Your task to perform on an android device: Open the Play Movies app and select the watchlist tab. Image 0: 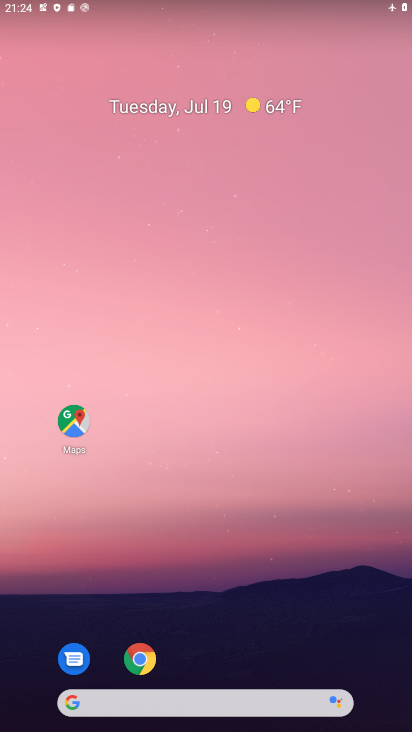
Step 0: drag from (243, 644) to (288, 42)
Your task to perform on an android device: Open the Play Movies app and select the watchlist tab. Image 1: 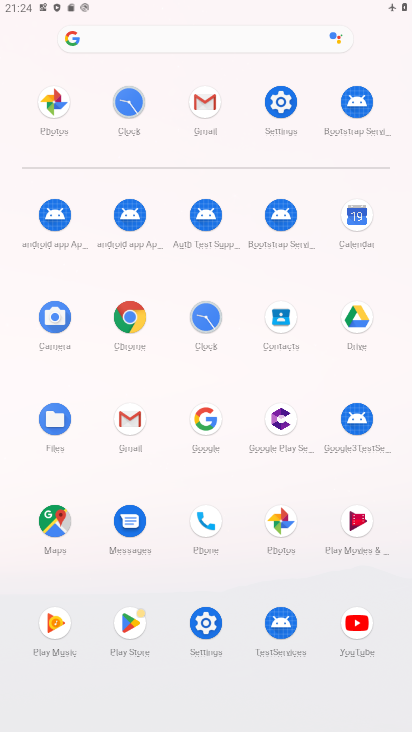
Step 1: click (365, 525)
Your task to perform on an android device: Open the Play Movies app and select the watchlist tab. Image 2: 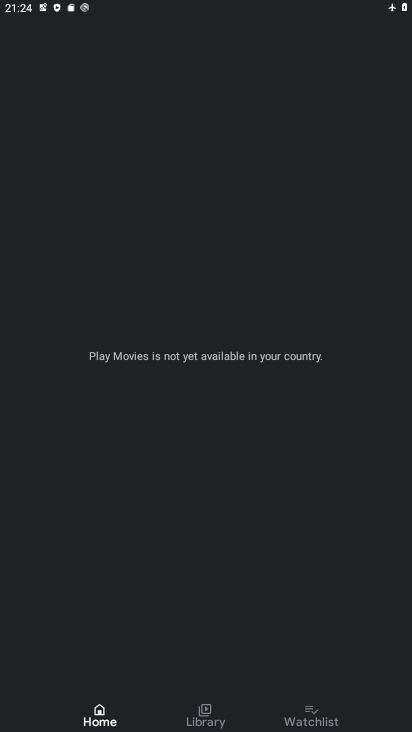
Step 2: click (321, 709)
Your task to perform on an android device: Open the Play Movies app and select the watchlist tab. Image 3: 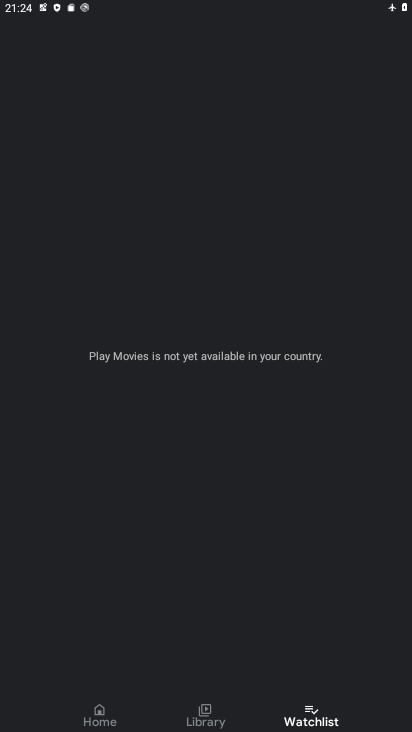
Step 3: task complete